Your task to perform on an android device: Go to internet settings Image 0: 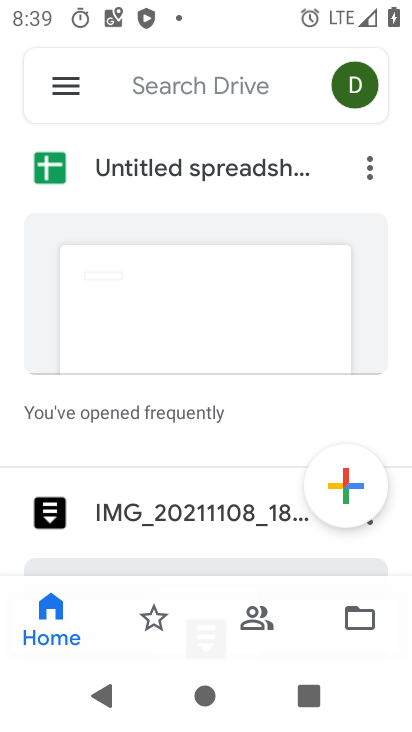
Step 0: press home button
Your task to perform on an android device: Go to internet settings Image 1: 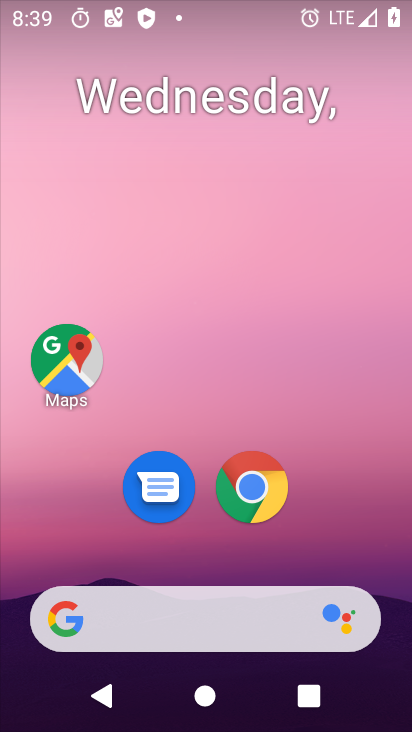
Step 1: drag from (341, 491) to (337, 1)
Your task to perform on an android device: Go to internet settings Image 2: 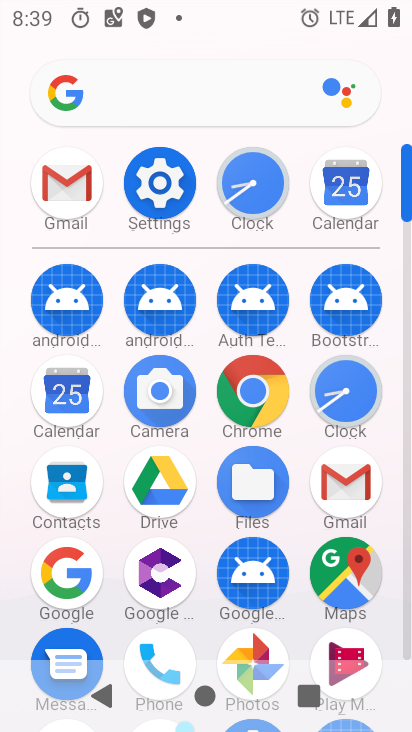
Step 2: click (159, 194)
Your task to perform on an android device: Go to internet settings Image 3: 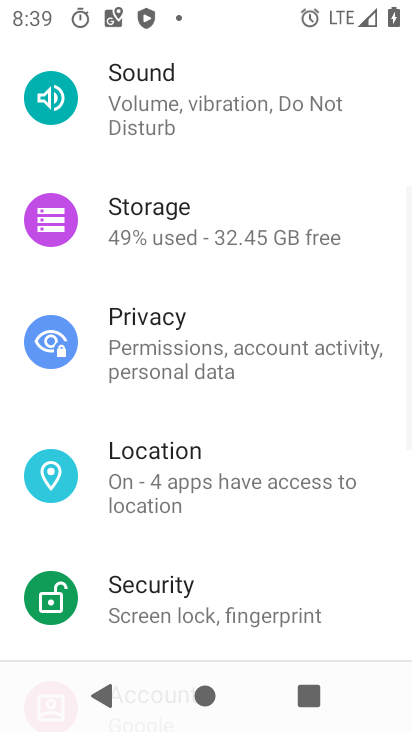
Step 3: drag from (368, 175) to (252, 565)
Your task to perform on an android device: Go to internet settings Image 4: 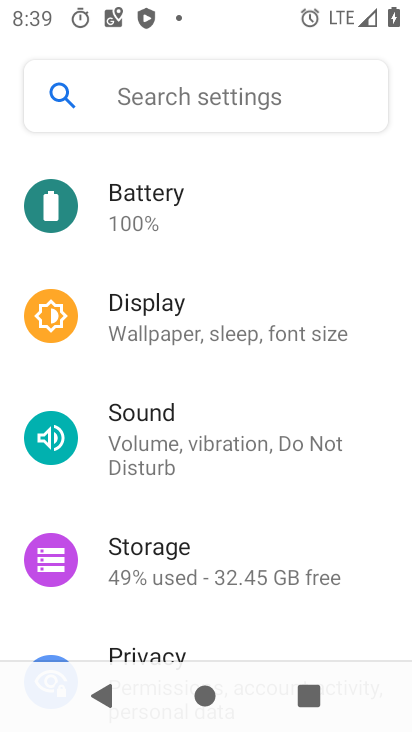
Step 4: drag from (240, 281) to (166, 618)
Your task to perform on an android device: Go to internet settings Image 5: 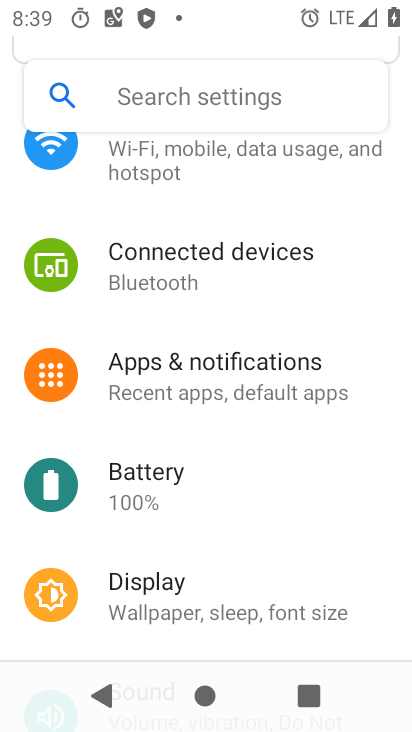
Step 5: drag from (181, 247) to (166, 556)
Your task to perform on an android device: Go to internet settings Image 6: 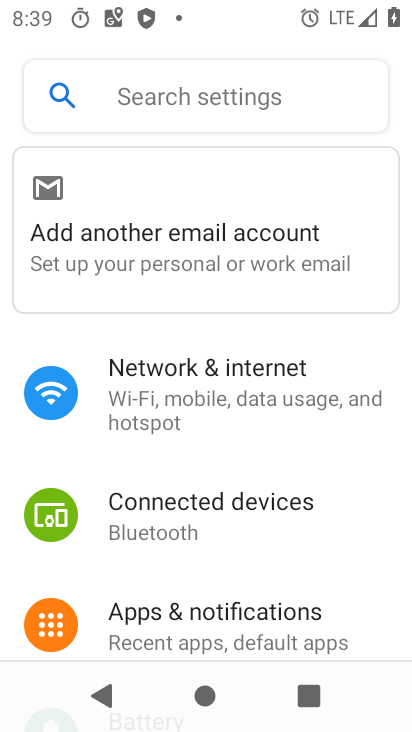
Step 6: click (155, 409)
Your task to perform on an android device: Go to internet settings Image 7: 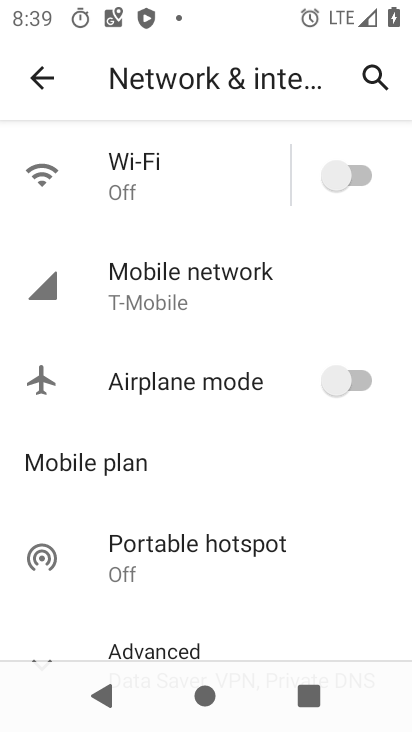
Step 7: task complete